Your task to perform on an android device: Open Chrome and go to settings Image 0: 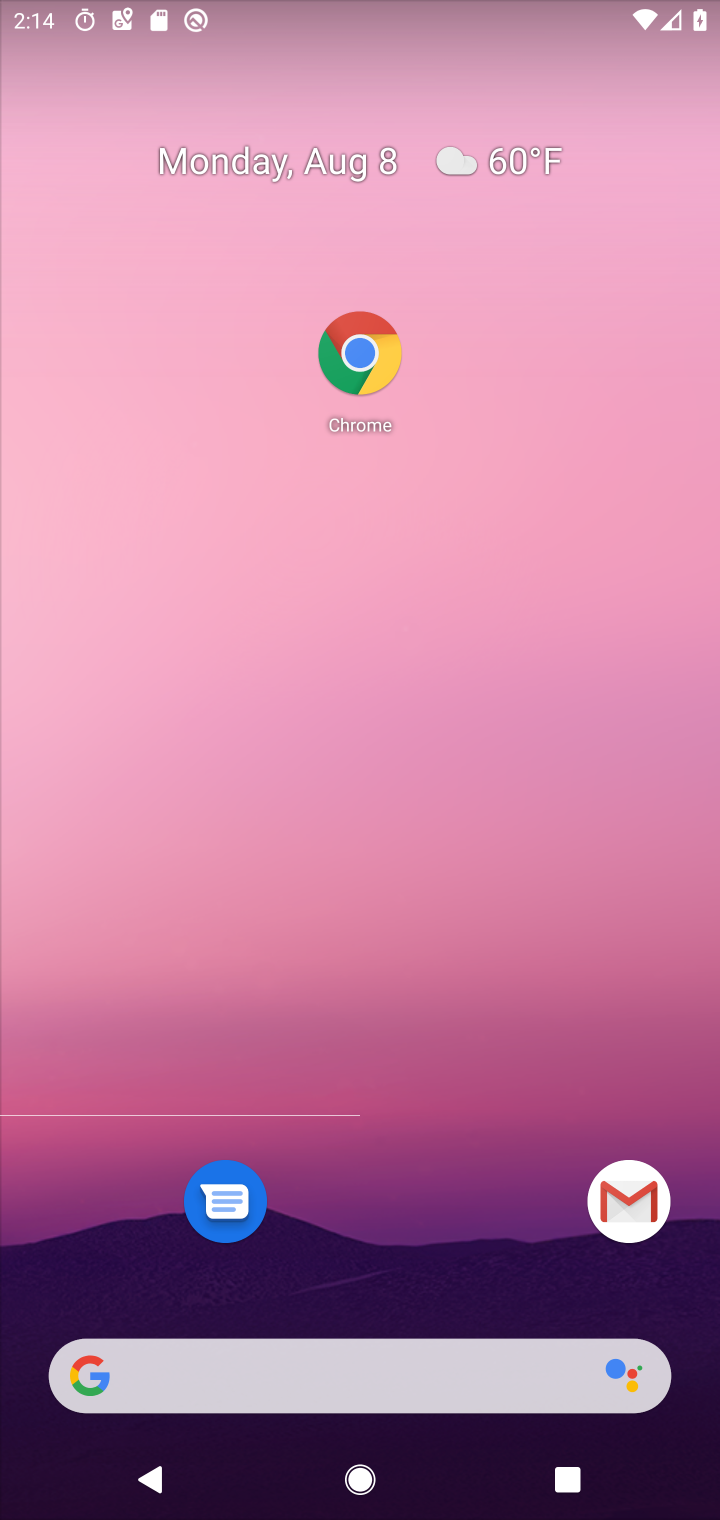
Step 0: press home button
Your task to perform on an android device: Open Chrome and go to settings Image 1: 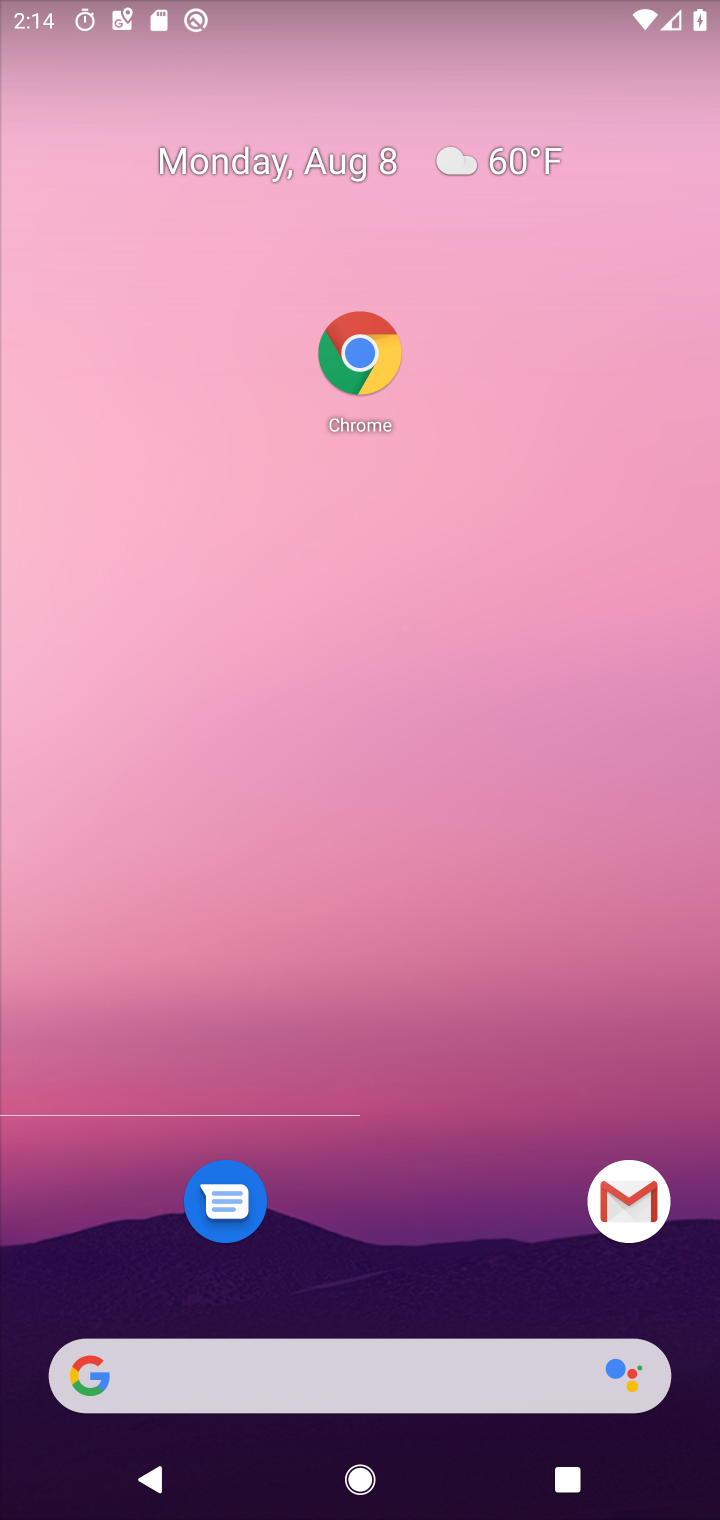
Step 1: drag from (465, 1417) to (625, 507)
Your task to perform on an android device: Open Chrome and go to settings Image 2: 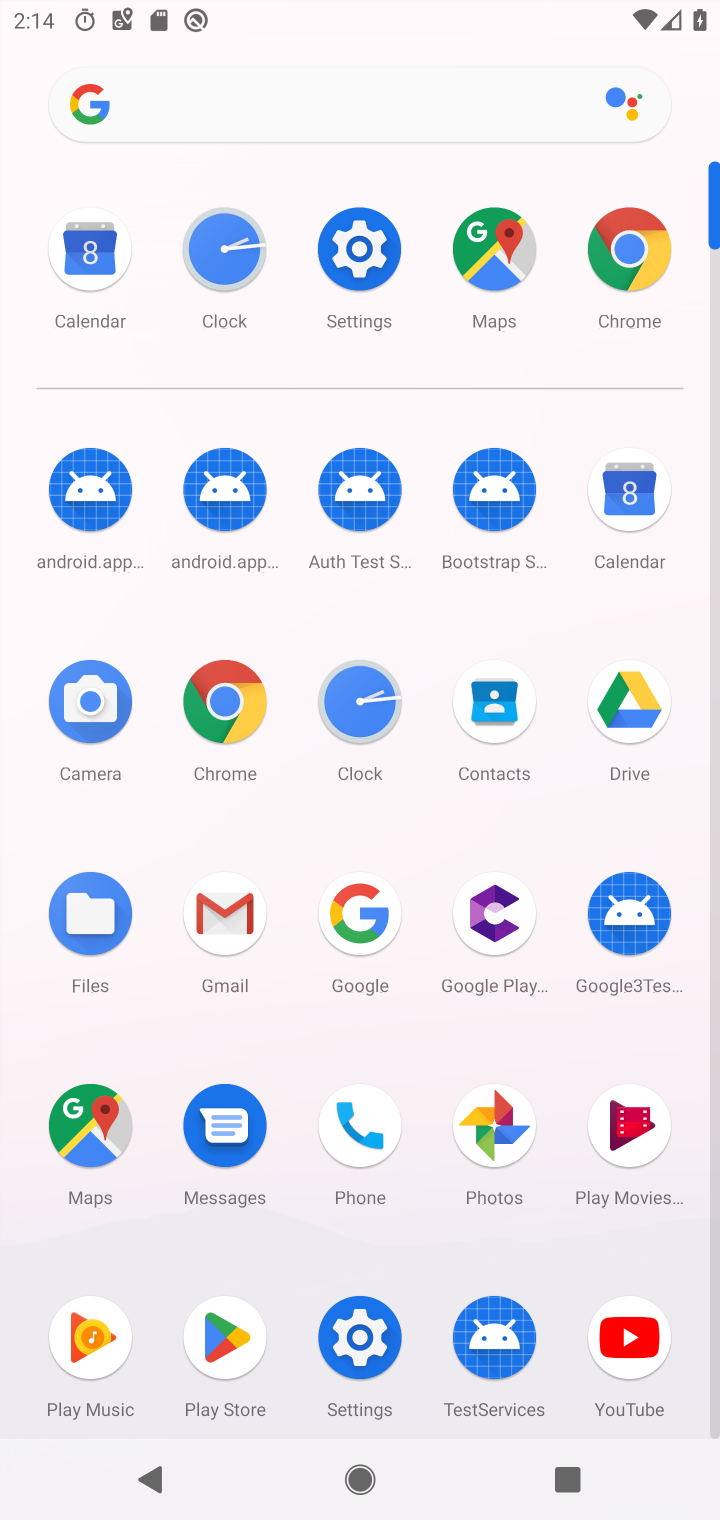
Step 2: click (221, 739)
Your task to perform on an android device: Open Chrome and go to settings Image 3: 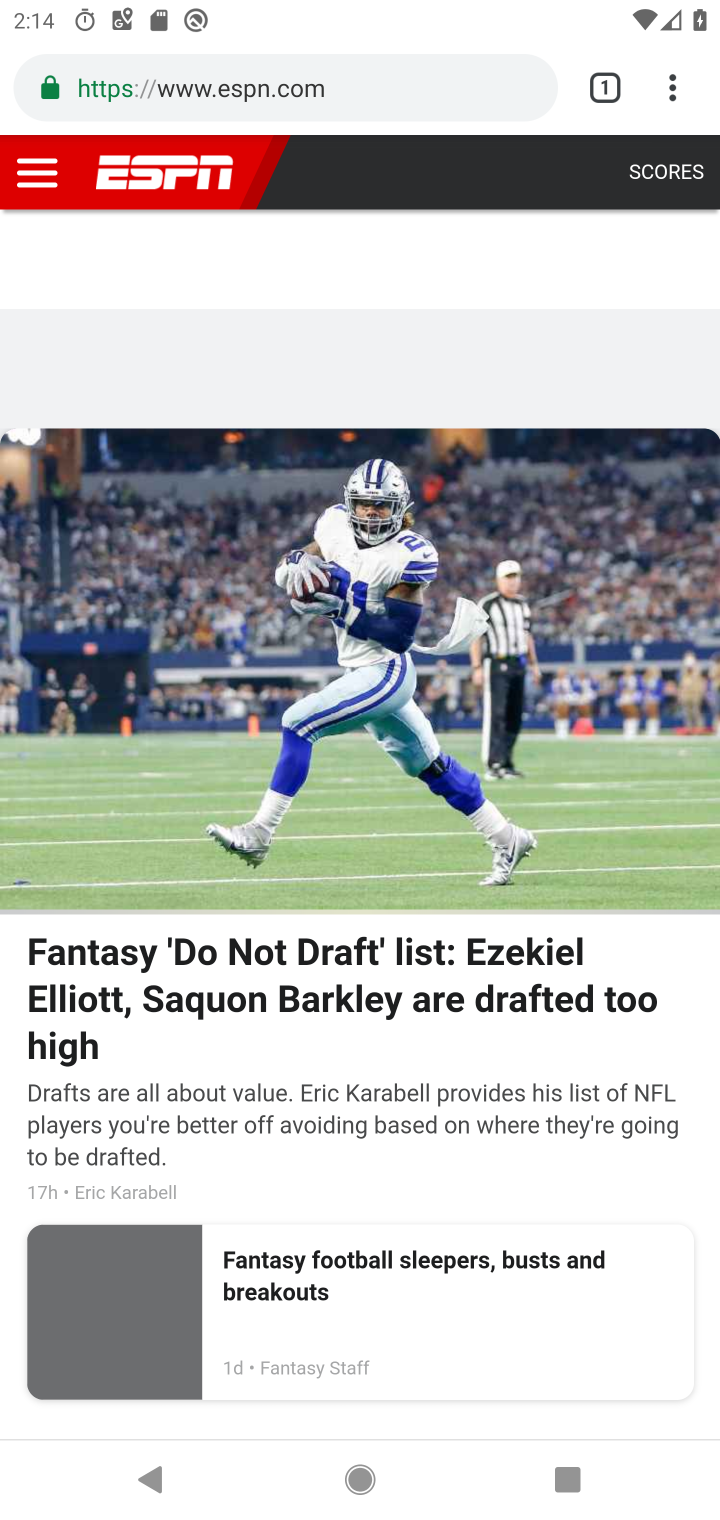
Step 3: click (670, 105)
Your task to perform on an android device: Open Chrome and go to settings Image 4: 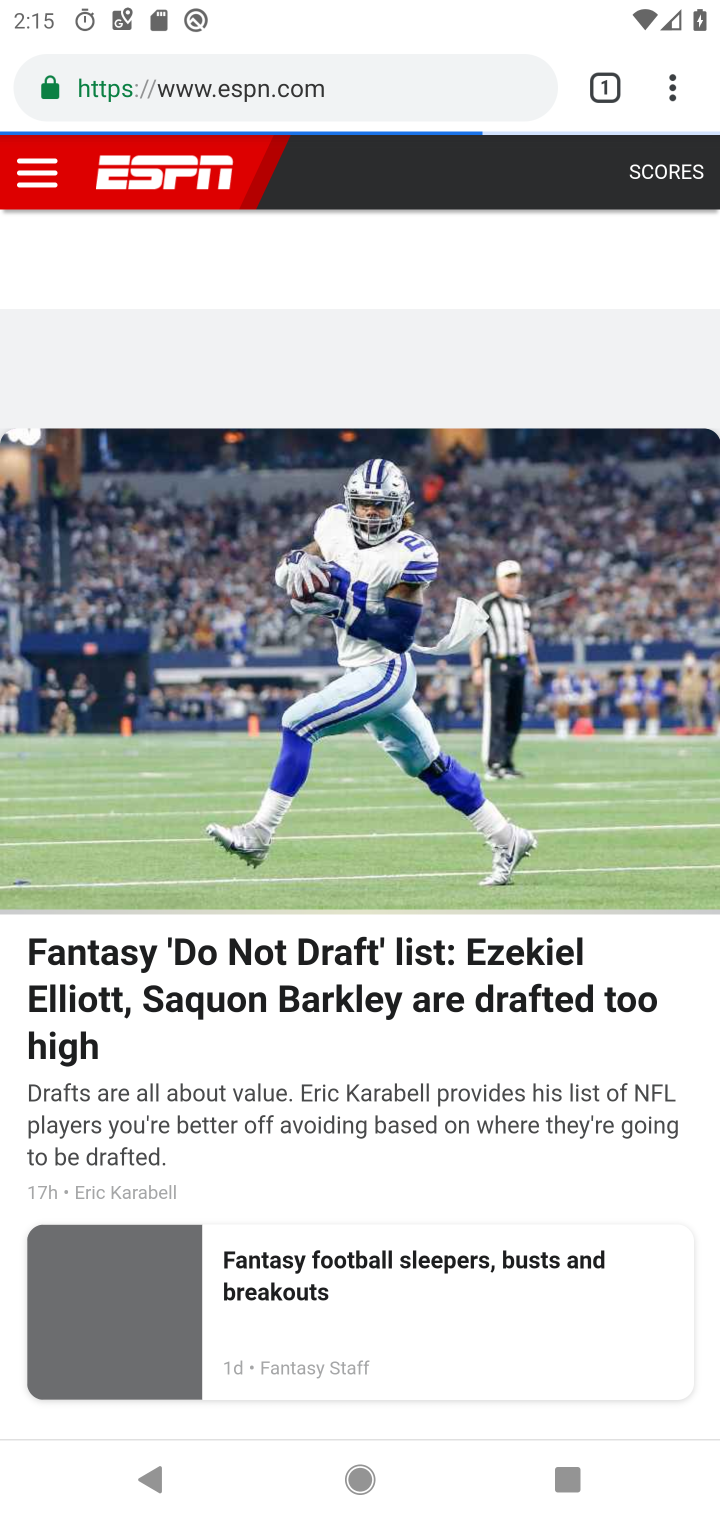
Step 4: click (654, 109)
Your task to perform on an android device: Open Chrome and go to settings Image 5: 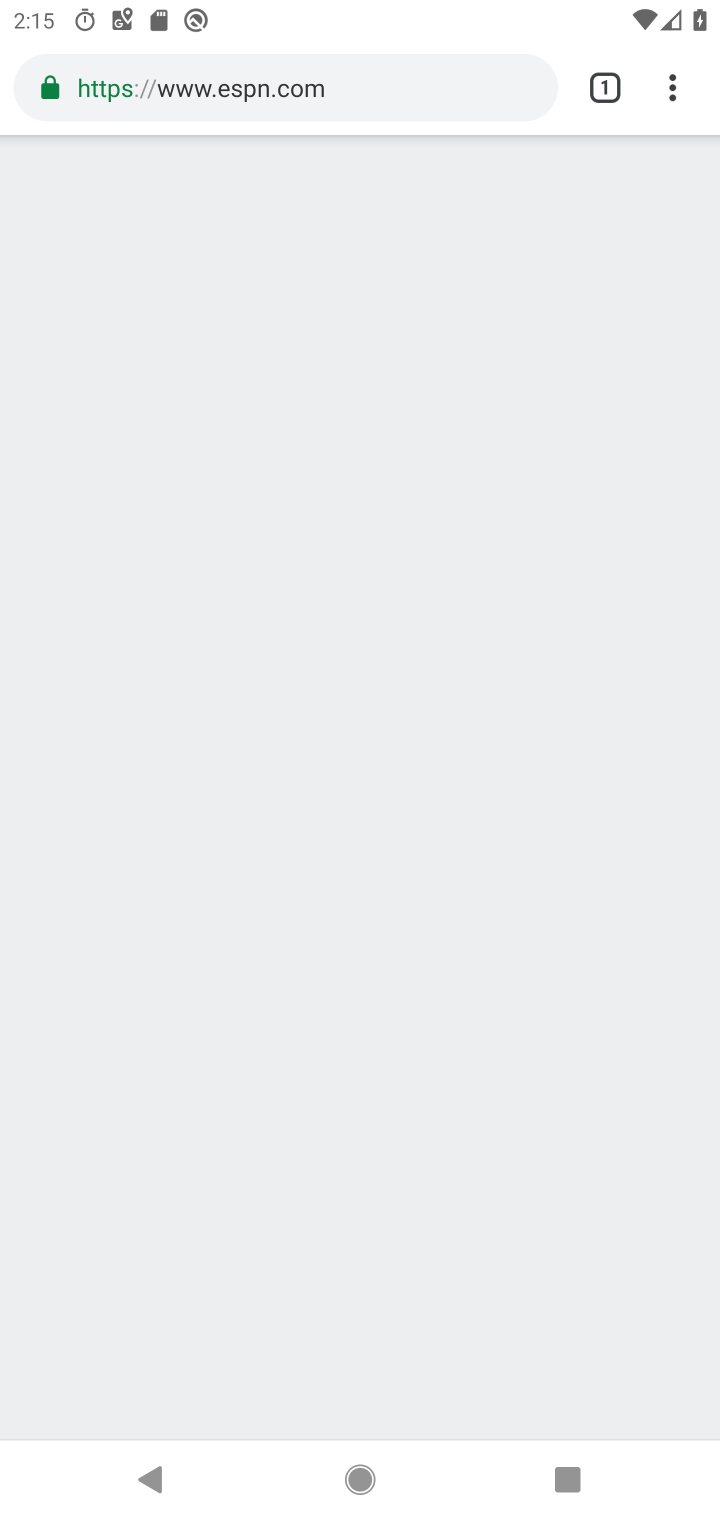
Step 5: click (639, 109)
Your task to perform on an android device: Open Chrome and go to settings Image 6: 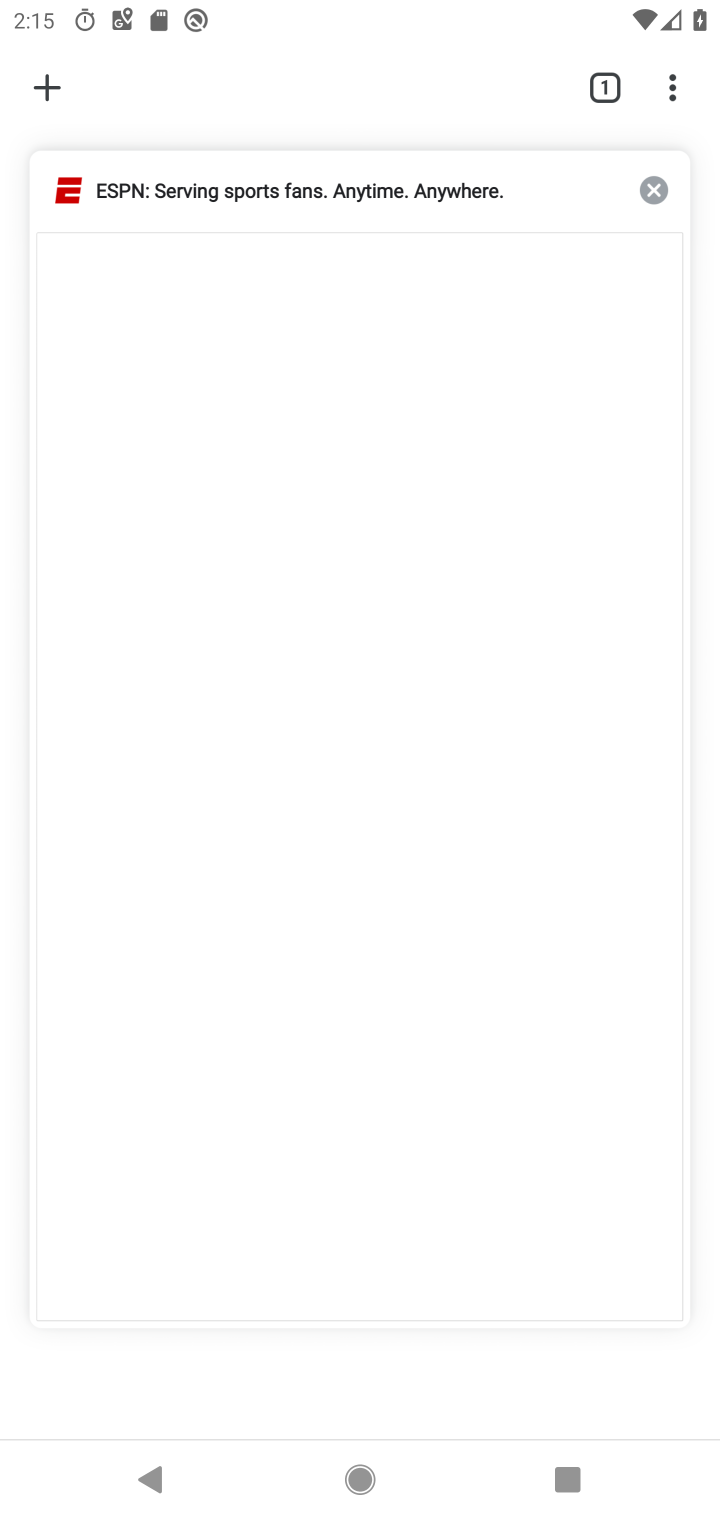
Step 6: click (660, 104)
Your task to perform on an android device: Open Chrome and go to settings Image 7: 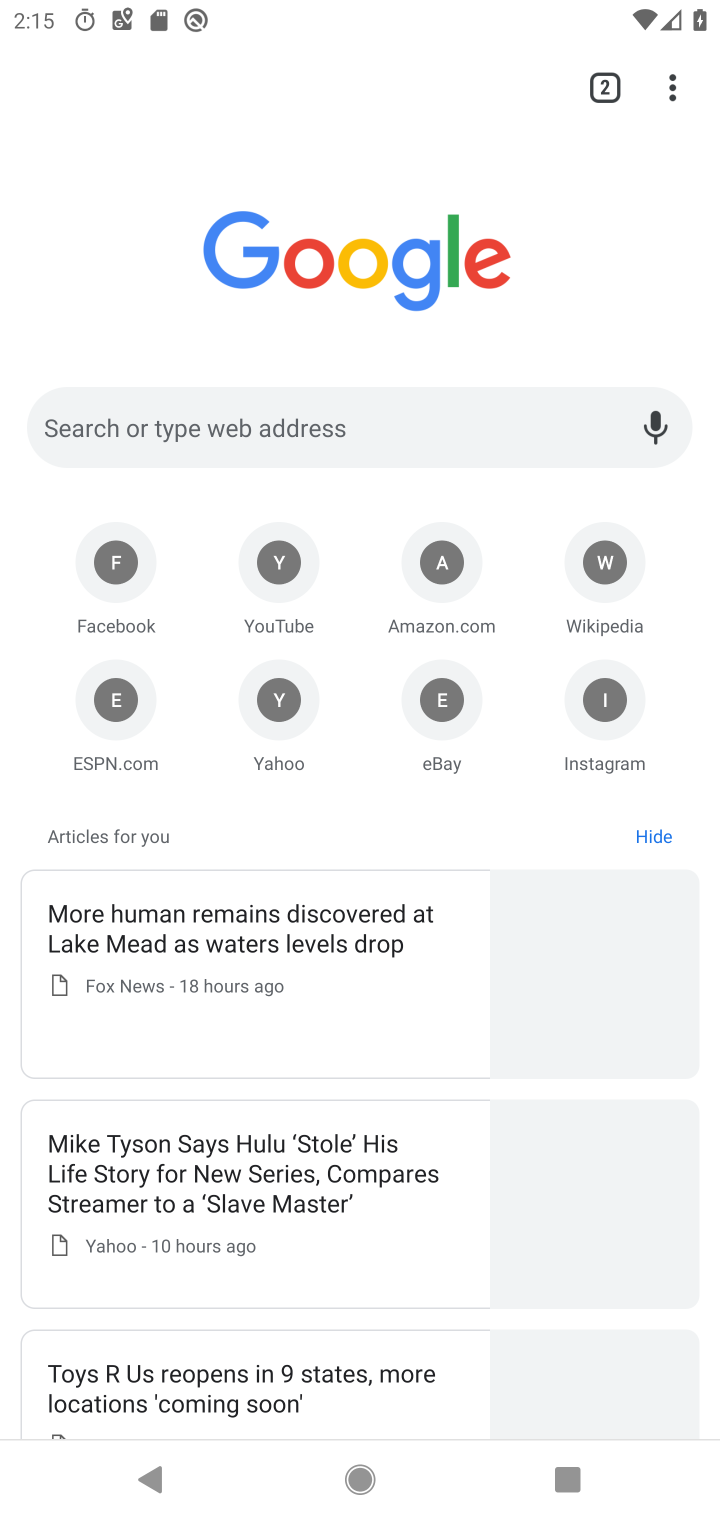
Step 7: click (675, 110)
Your task to perform on an android device: Open Chrome and go to settings Image 8: 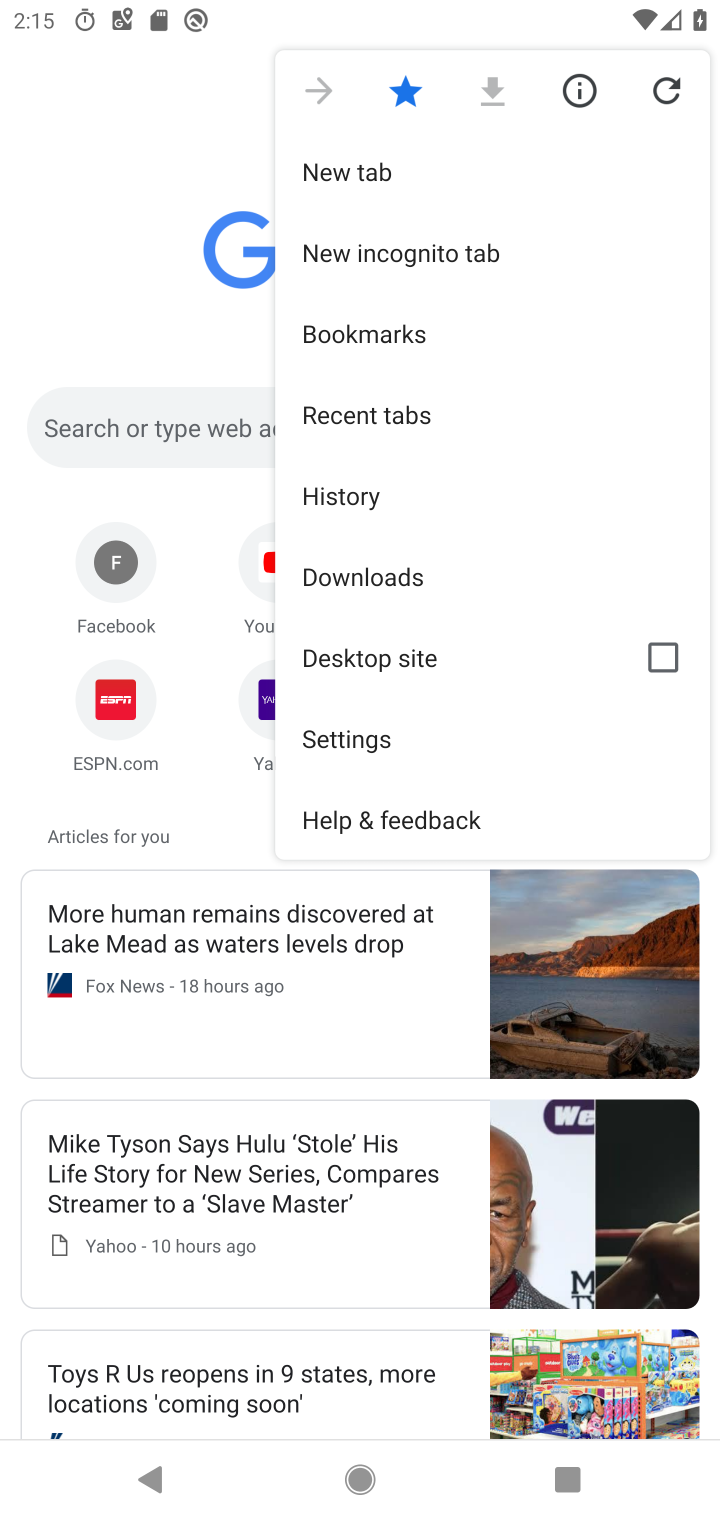
Step 8: click (385, 732)
Your task to perform on an android device: Open Chrome and go to settings Image 9: 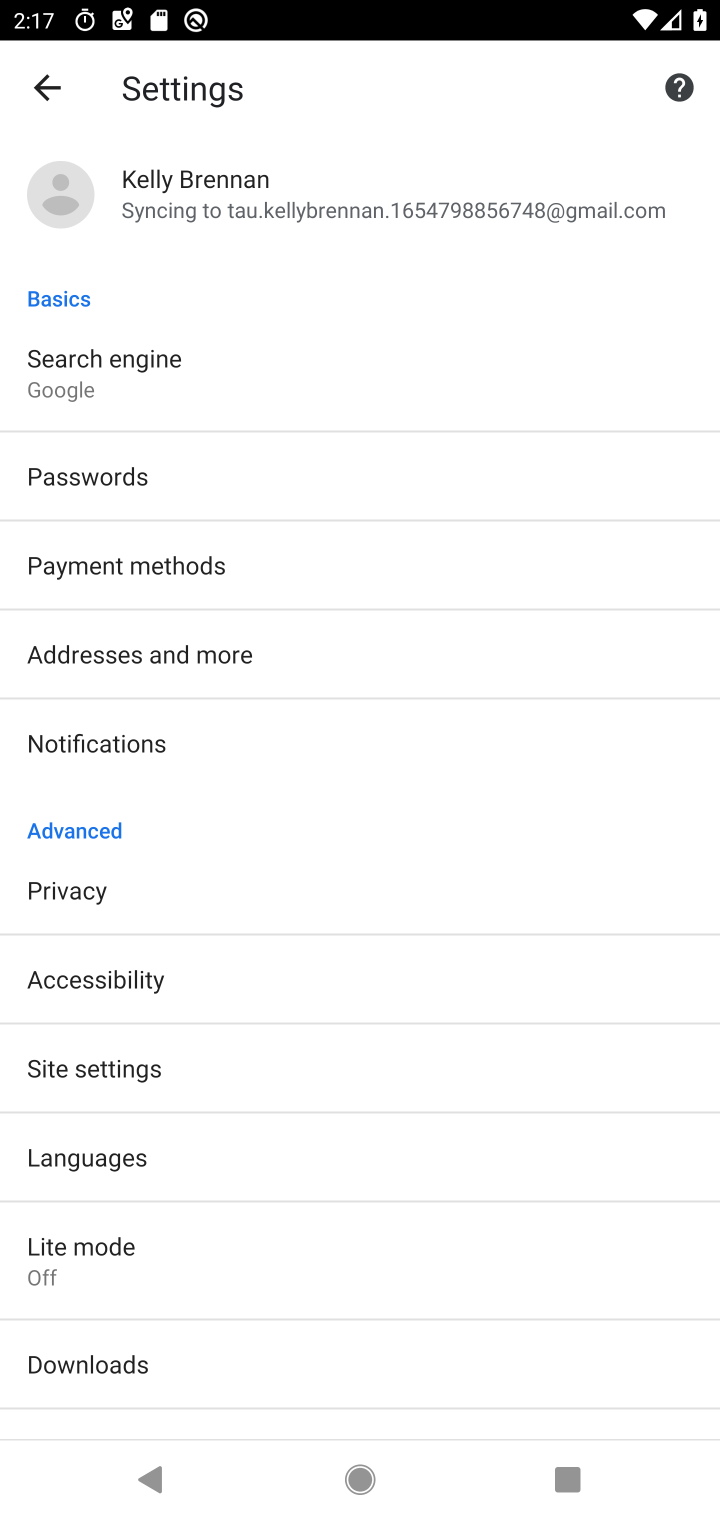
Step 9: task complete